Your task to perform on an android device: open device folders in google photos Image 0: 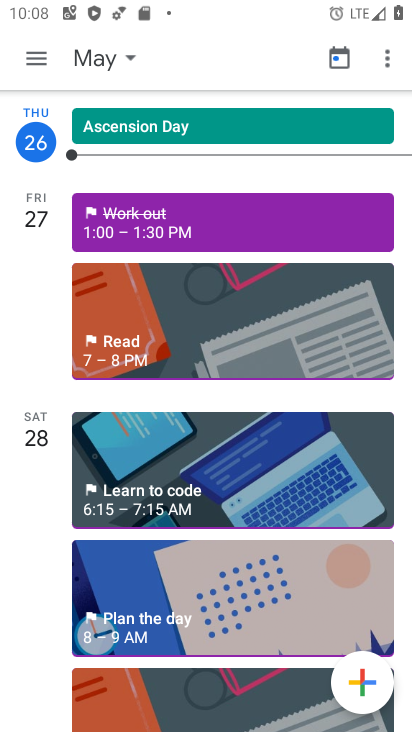
Step 0: press home button
Your task to perform on an android device: open device folders in google photos Image 1: 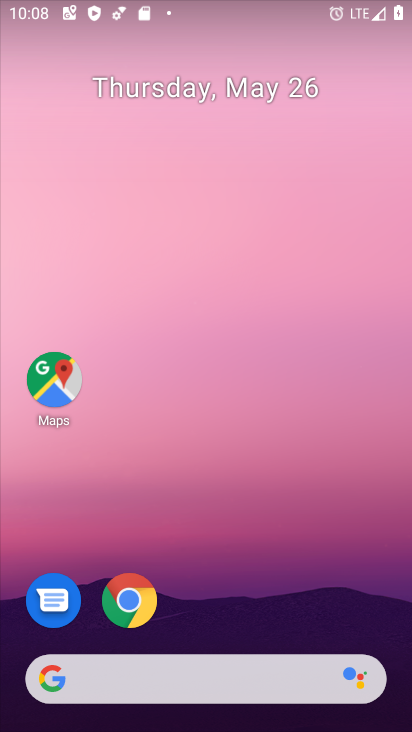
Step 1: drag from (267, 542) to (304, 79)
Your task to perform on an android device: open device folders in google photos Image 2: 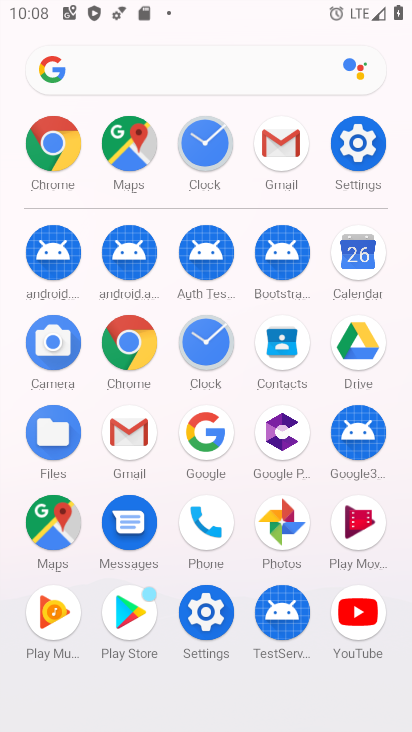
Step 2: click (287, 519)
Your task to perform on an android device: open device folders in google photos Image 3: 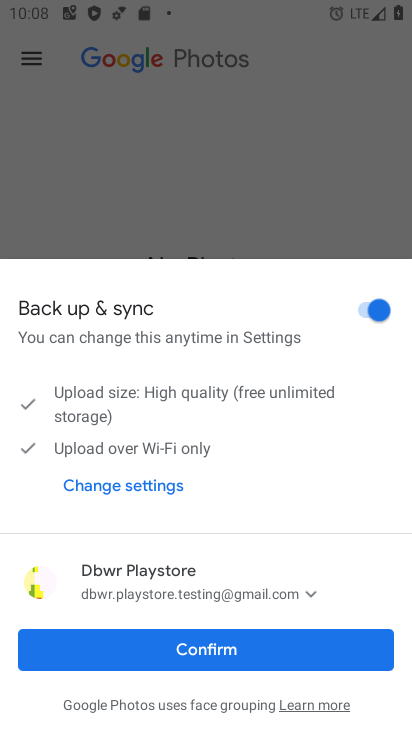
Step 3: click (252, 652)
Your task to perform on an android device: open device folders in google photos Image 4: 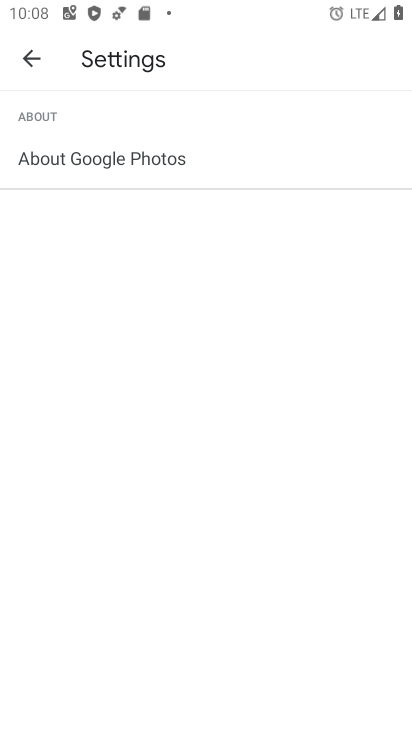
Step 4: click (27, 37)
Your task to perform on an android device: open device folders in google photos Image 5: 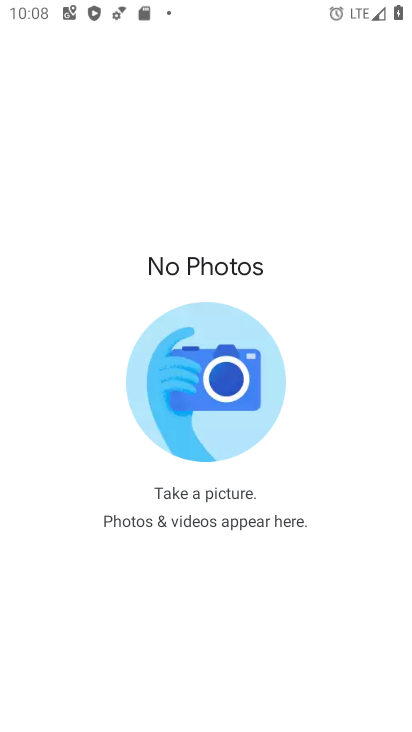
Step 5: click (24, 54)
Your task to perform on an android device: open device folders in google photos Image 6: 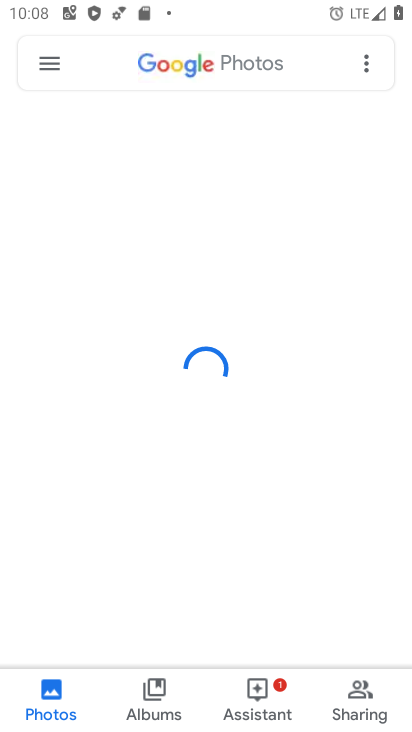
Step 6: click (30, 55)
Your task to perform on an android device: open device folders in google photos Image 7: 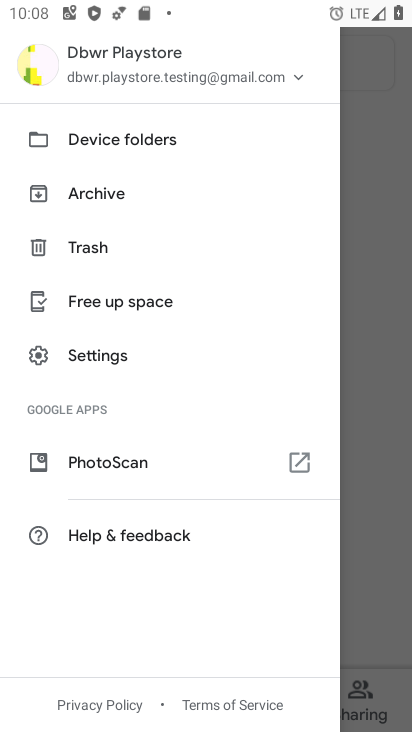
Step 7: click (106, 159)
Your task to perform on an android device: open device folders in google photos Image 8: 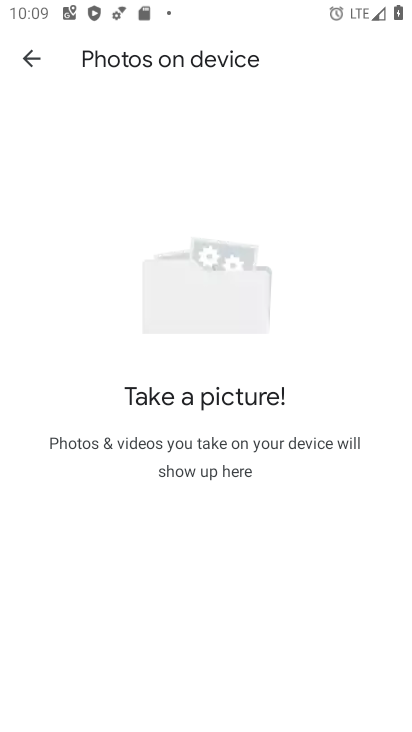
Step 8: task complete